Your task to perform on an android device: turn off smart reply in the gmail app Image 0: 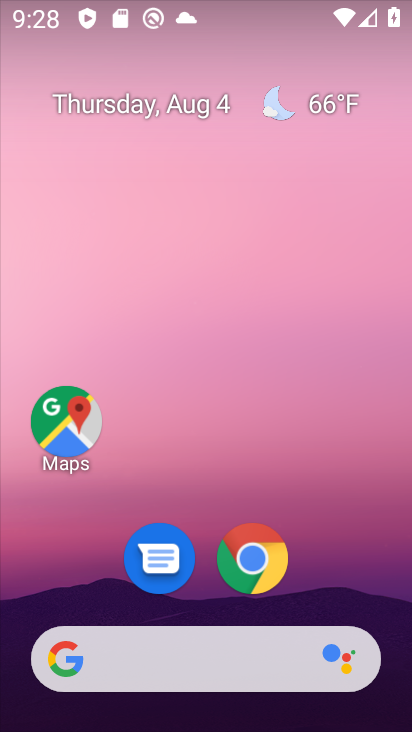
Step 0: drag from (318, 546) to (306, 184)
Your task to perform on an android device: turn off smart reply in the gmail app Image 1: 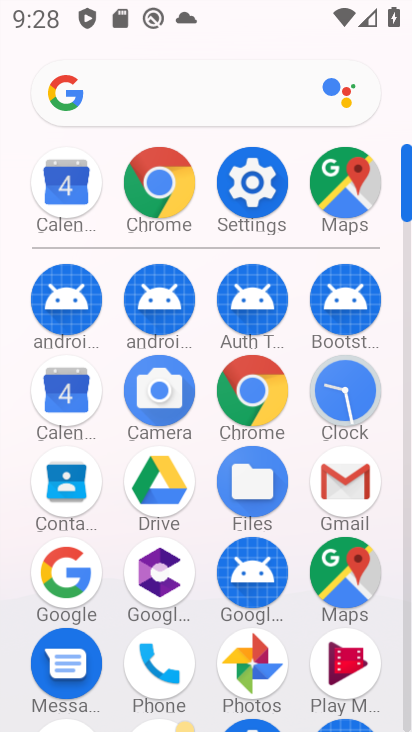
Step 1: click (335, 477)
Your task to perform on an android device: turn off smart reply in the gmail app Image 2: 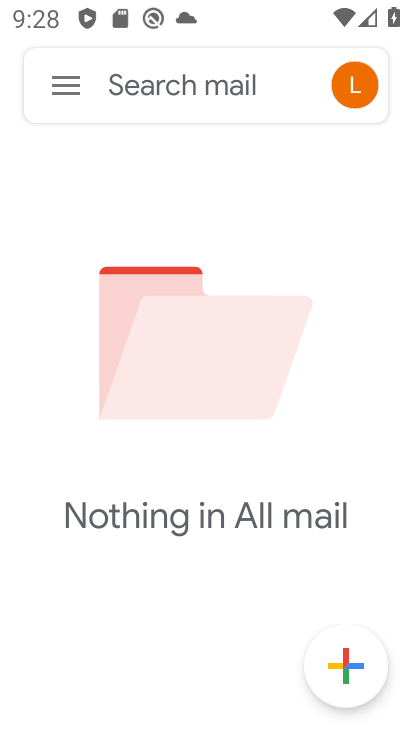
Step 2: click (49, 86)
Your task to perform on an android device: turn off smart reply in the gmail app Image 3: 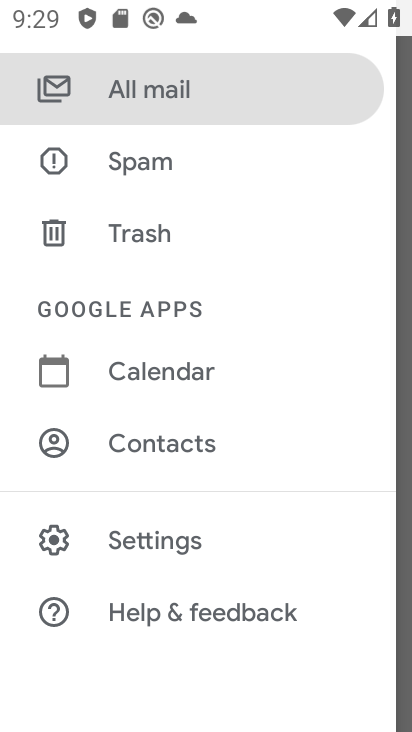
Step 3: click (117, 533)
Your task to perform on an android device: turn off smart reply in the gmail app Image 4: 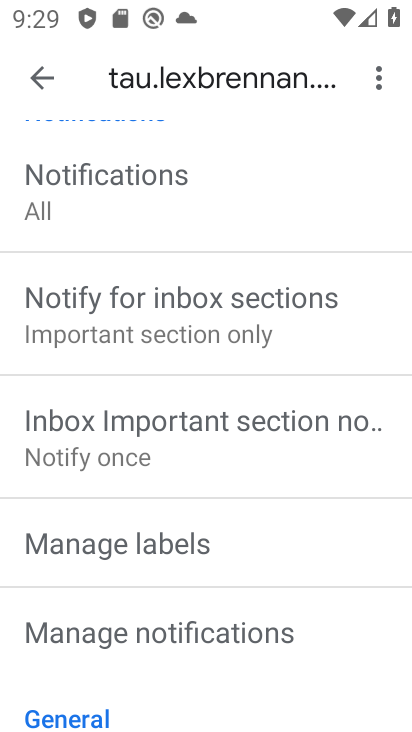
Step 4: drag from (195, 569) to (322, 150)
Your task to perform on an android device: turn off smart reply in the gmail app Image 5: 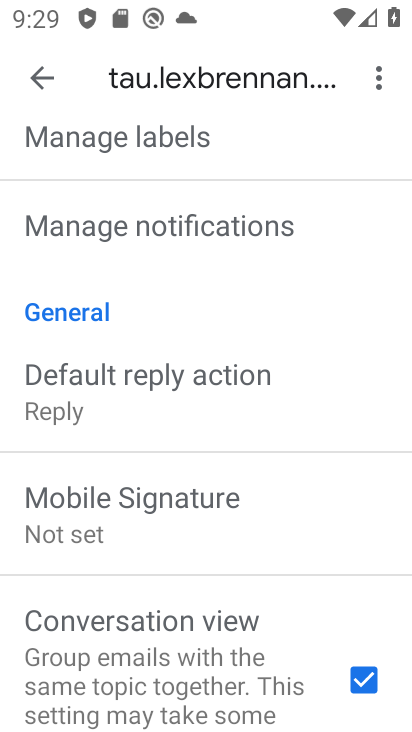
Step 5: drag from (233, 561) to (312, 109)
Your task to perform on an android device: turn off smart reply in the gmail app Image 6: 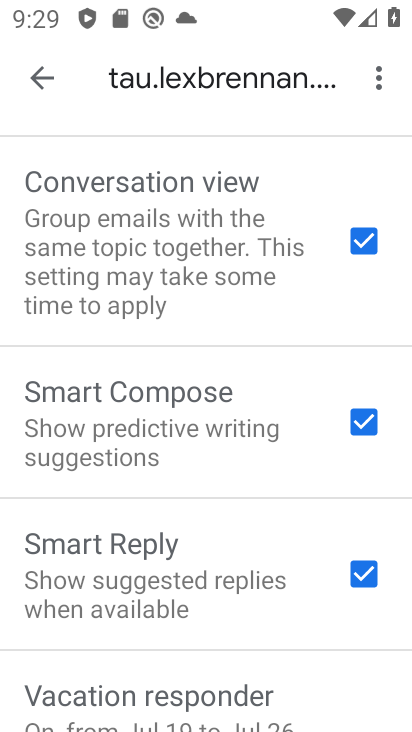
Step 6: click (368, 572)
Your task to perform on an android device: turn off smart reply in the gmail app Image 7: 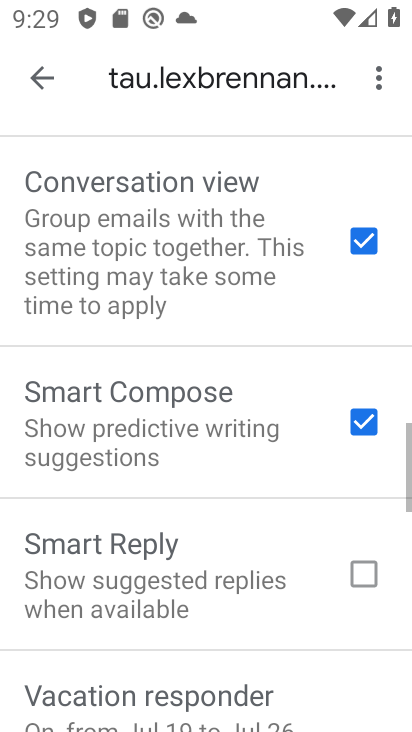
Step 7: task complete